Your task to perform on an android device: turn notification dots off Image 0: 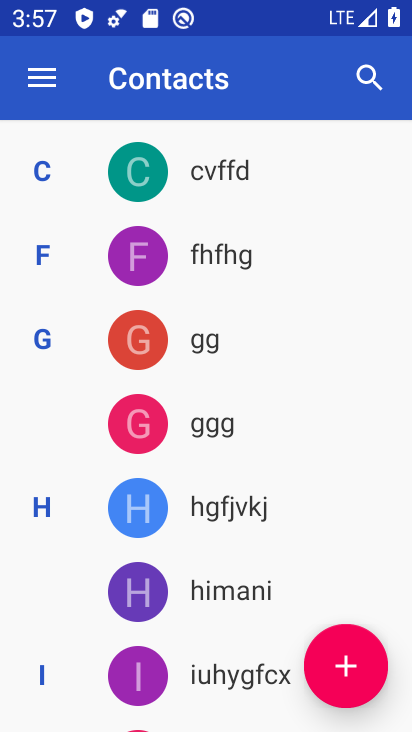
Step 0: press back button
Your task to perform on an android device: turn notification dots off Image 1: 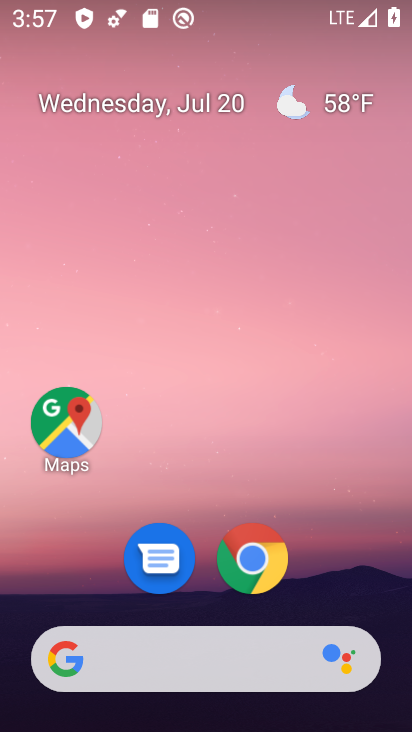
Step 1: drag from (51, 593) to (179, 16)
Your task to perform on an android device: turn notification dots off Image 2: 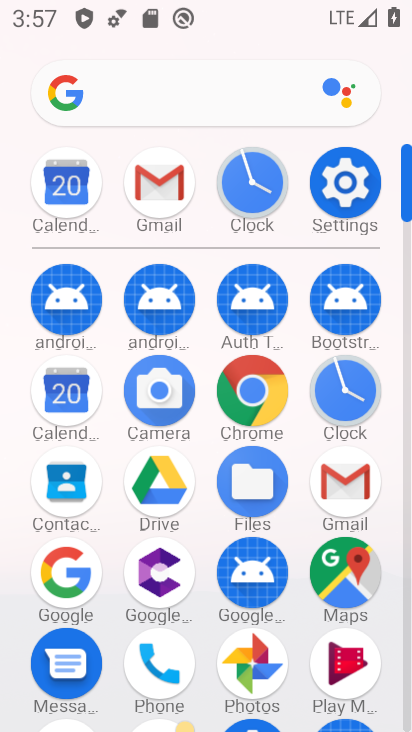
Step 2: click (335, 173)
Your task to perform on an android device: turn notification dots off Image 3: 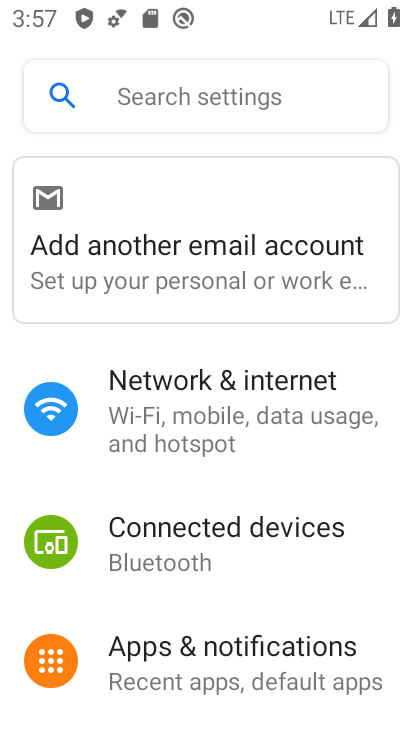
Step 3: click (238, 655)
Your task to perform on an android device: turn notification dots off Image 4: 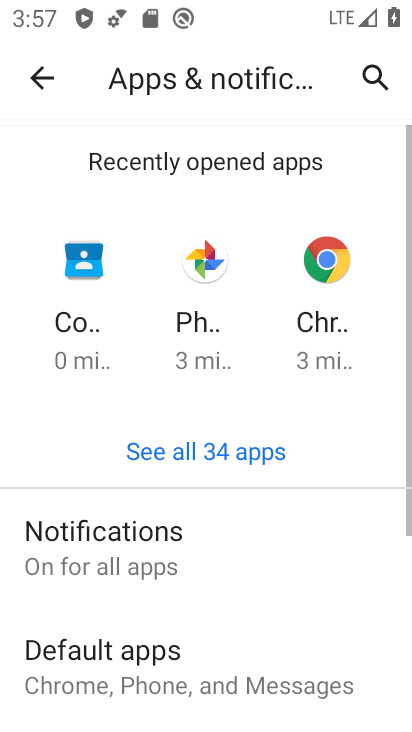
Step 4: drag from (129, 665) to (252, 227)
Your task to perform on an android device: turn notification dots off Image 5: 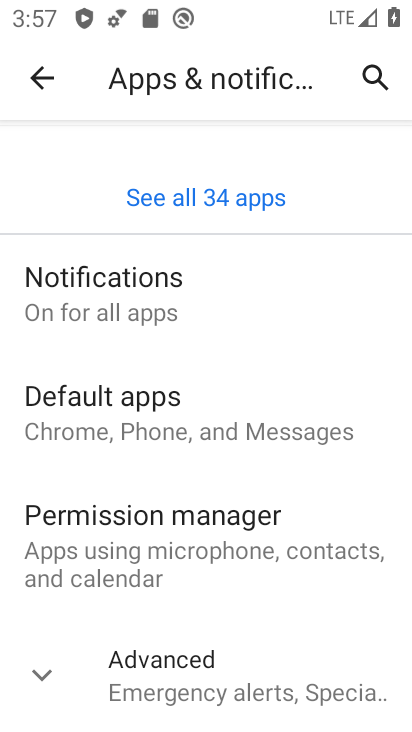
Step 5: click (123, 305)
Your task to perform on an android device: turn notification dots off Image 6: 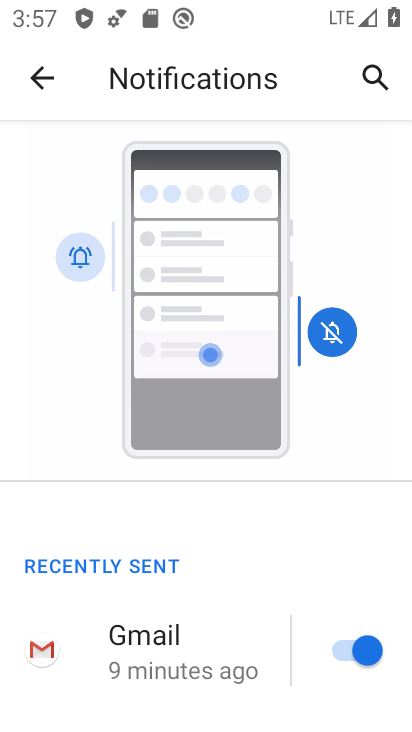
Step 6: drag from (156, 660) to (258, 18)
Your task to perform on an android device: turn notification dots off Image 7: 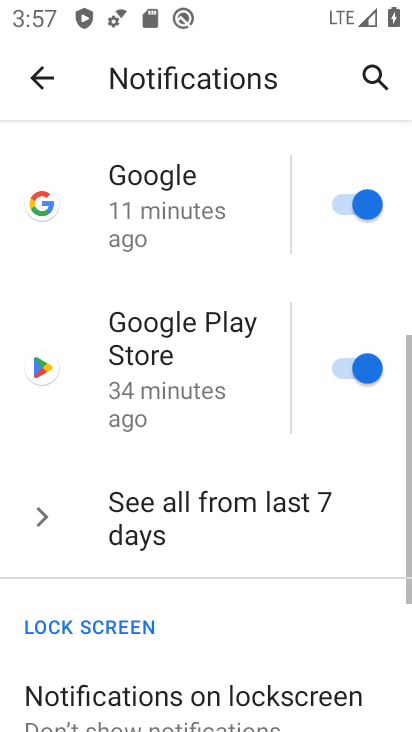
Step 7: drag from (136, 669) to (218, 98)
Your task to perform on an android device: turn notification dots off Image 8: 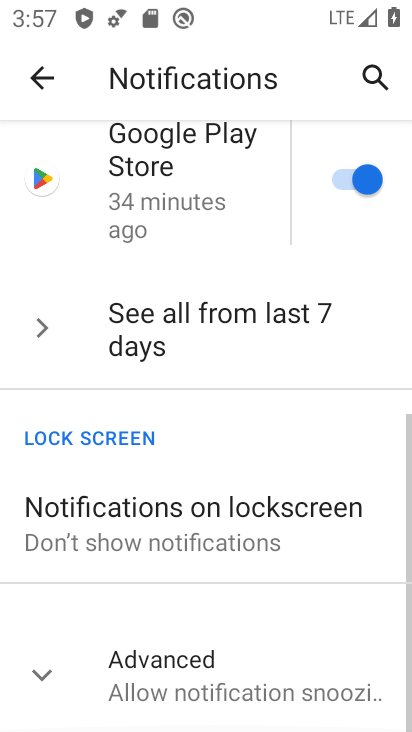
Step 8: click (187, 683)
Your task to perform on an android device: turn notification dots off Image 9: 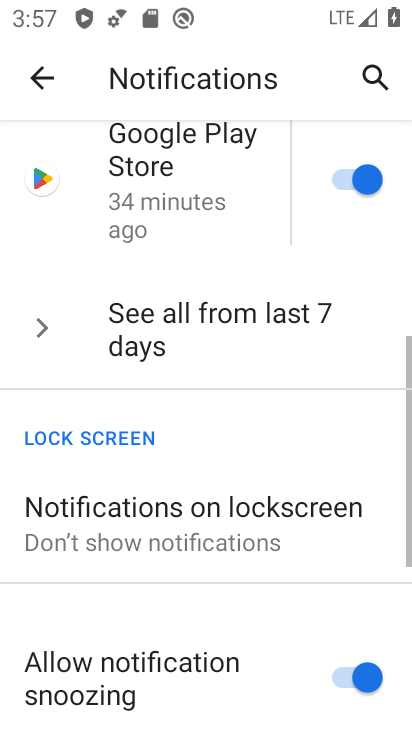
Step 9: drag from (197, 647) to (254, 109)
Your task to perform on an android device: turn notification dots off Image 10: 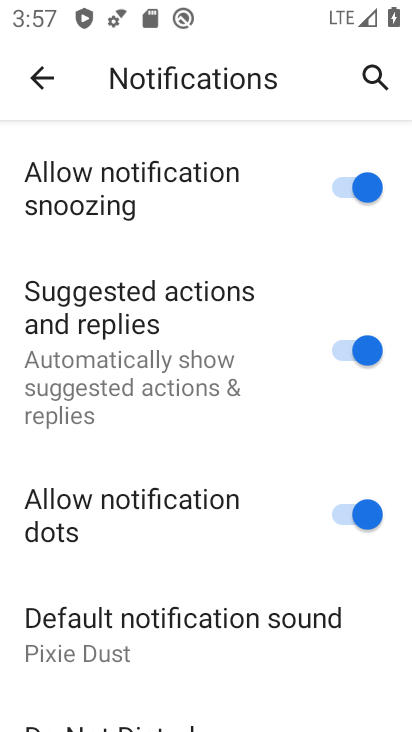
Step 10: click (362, 513)
Your task to perform on an android device: turn notification dots off Image 11: 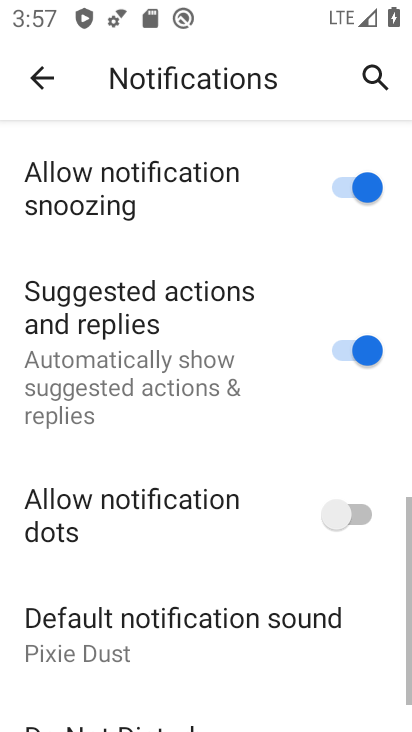
Step 11: task complete